Your task to perform on an android device: turn off notifications settings in the gmail app Image 0: 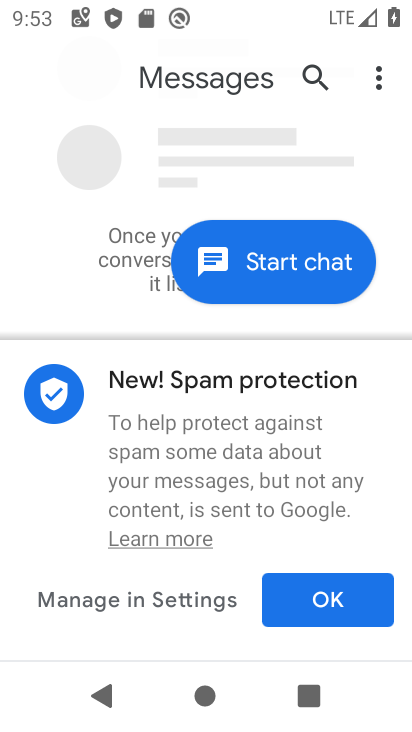
Step 0: press home button
Your task to perform on an android device: turn off notifications settings in the gmail app Image 1: 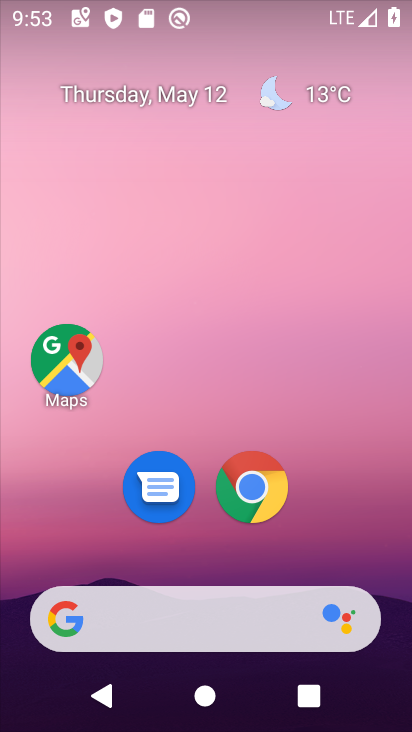
Step 1: drag from (343, 442) to (323, 6)
Your task to perform on an android device: turn off notifications settings in the gmail app Image 2: 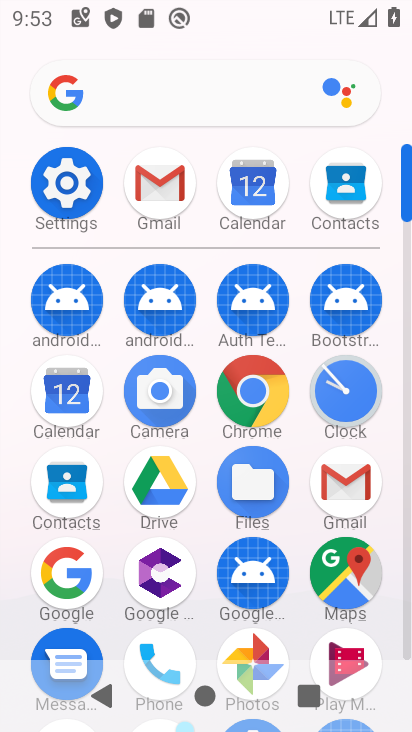
Step 2: click (158, 198)
Your task to perform on an android device: turn off notifications settings in the gmail app Image 3: 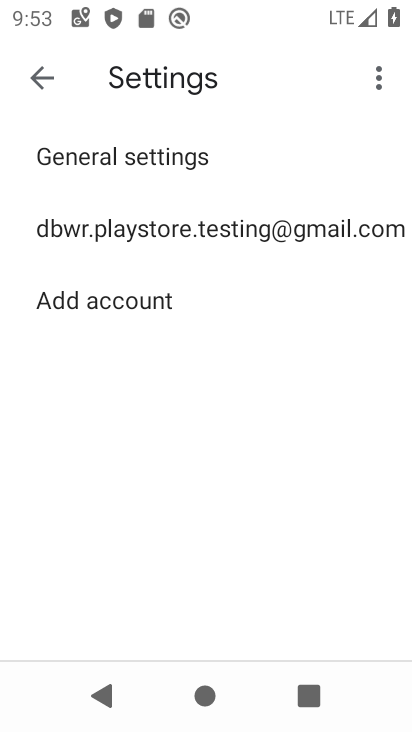
Step 3: click (84, 152)
Your task to perform on an android device: turn off notifications settings in the gmail app Image 4: 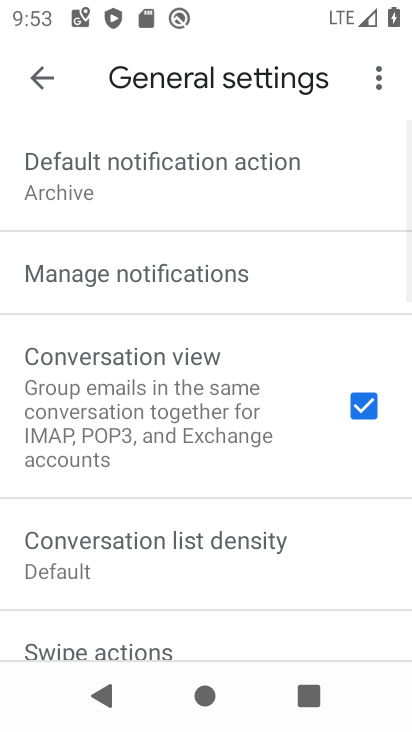
Step 4: click (113, 263)
Your task to perform on an android device: turn off notifications settings in the gmail app Image 5: 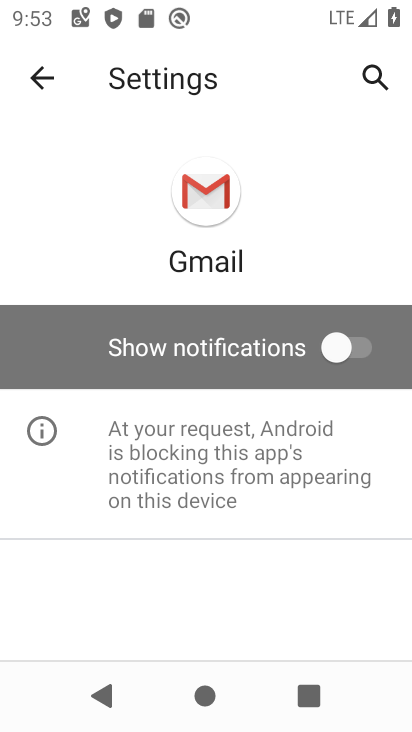
Step 5: task complete